Your task to perform on an android device: When is my next appointment? Image 0: 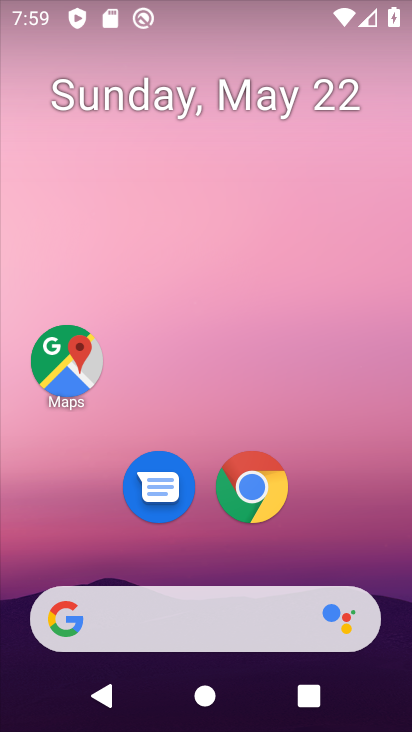
Step 0: drag from (350, 531) to (304, 24)
Your task to perform on an android device: When is my next appointment? Image 1: 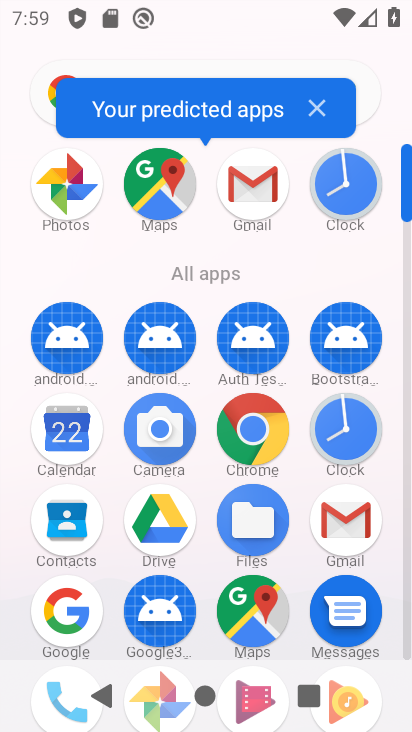
Step 1: click (55, 456)
Your task to perform on an android device: When is my next appointment? Image 2: 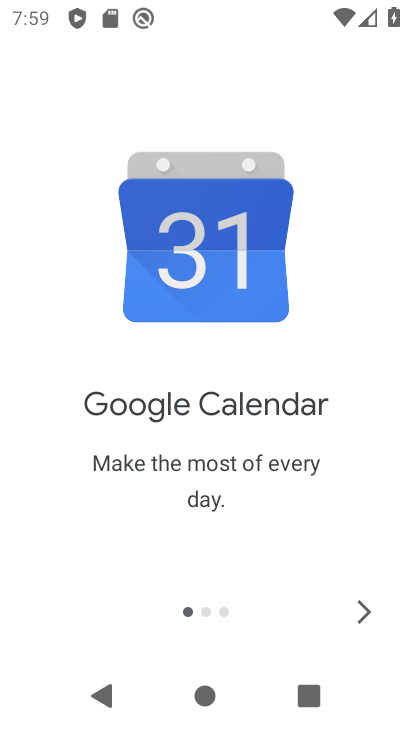
Step 2: click (365, 625)
Your task to perform on an android device: When is my next appointment? Image 3: 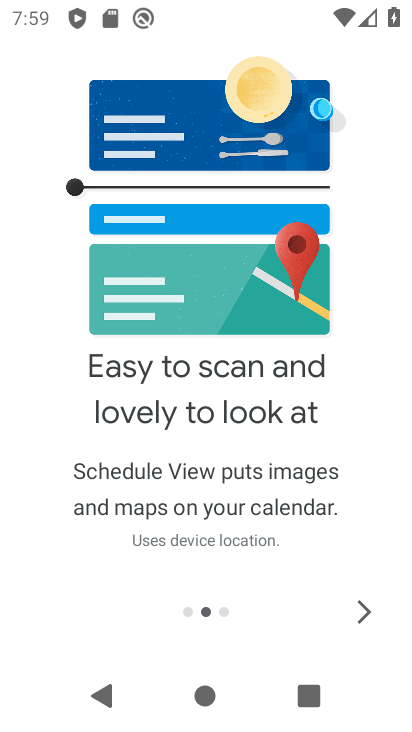
Step 3: click (354, 605)
Your task to perform on an android device: When is my next appointment? Image 4: 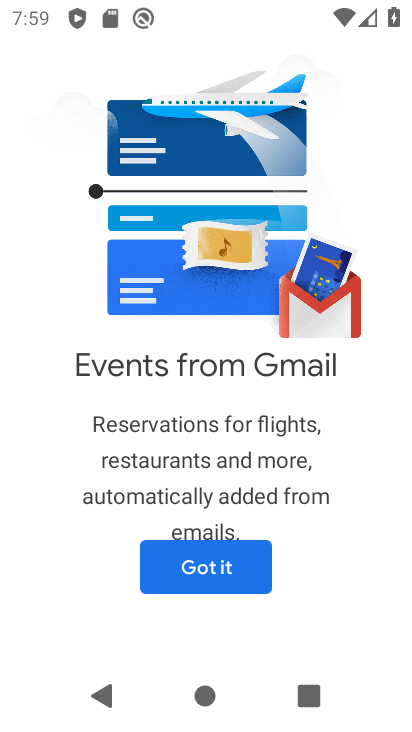
Step 4: click (256, 574)
Your task to perform on an android device: When is my next appointment? Image 5: 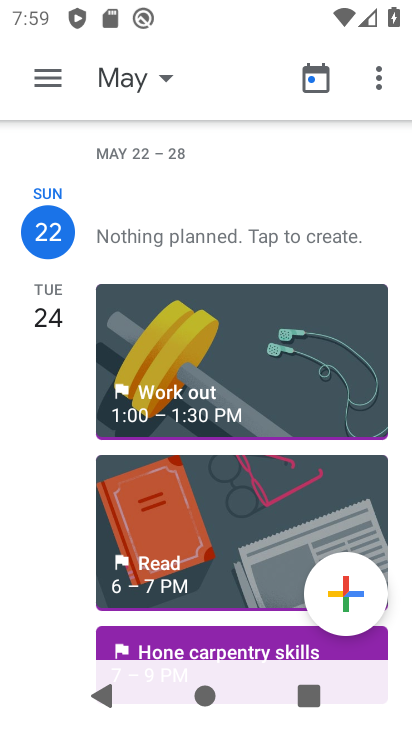
Step 5: click (130, 63)
Your task to perform on an android device: When is my next appointment? Image 6: 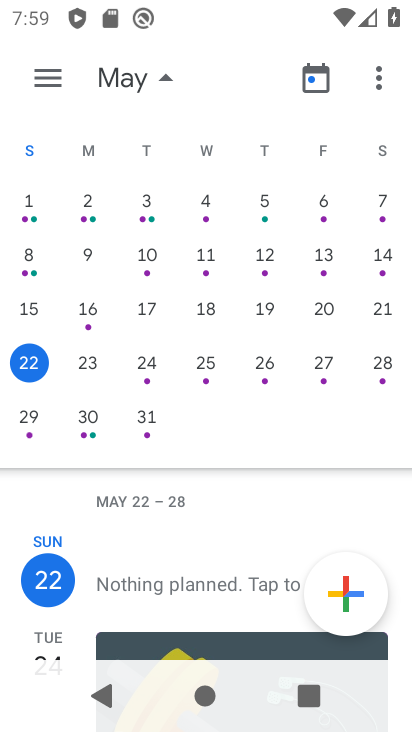
Step 6: task complete